Your task to perform on an android device: change alarm snooze length Image 0: 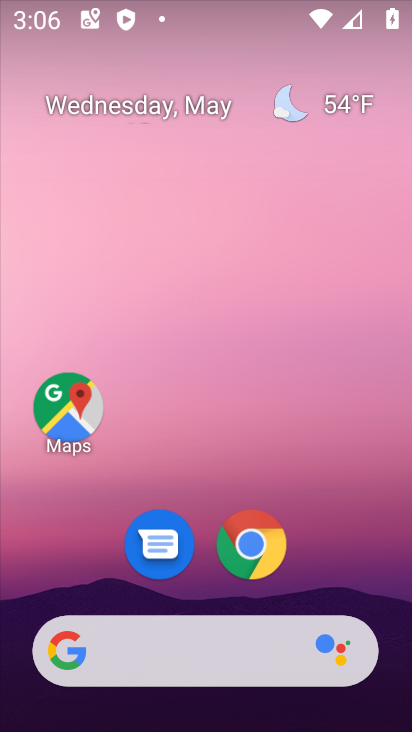
Step 0: drag from (374, 573) to (180, 16)
Your task to perform on an android device: change alarm snooze length Image 1: 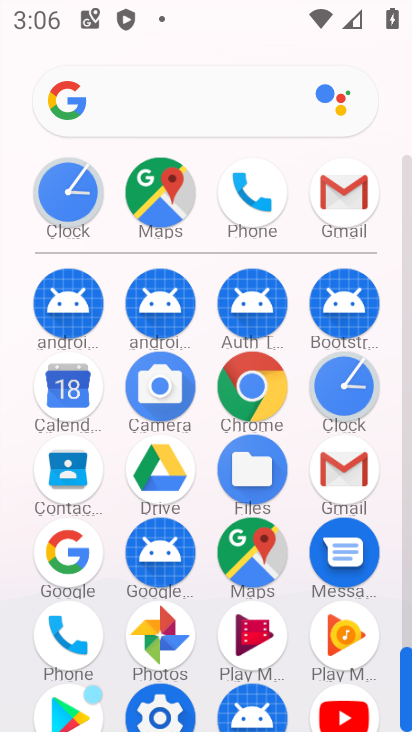
Step 1: click (328, 415)
Your task to perform on an android device: change alarm snooze length Image 2: 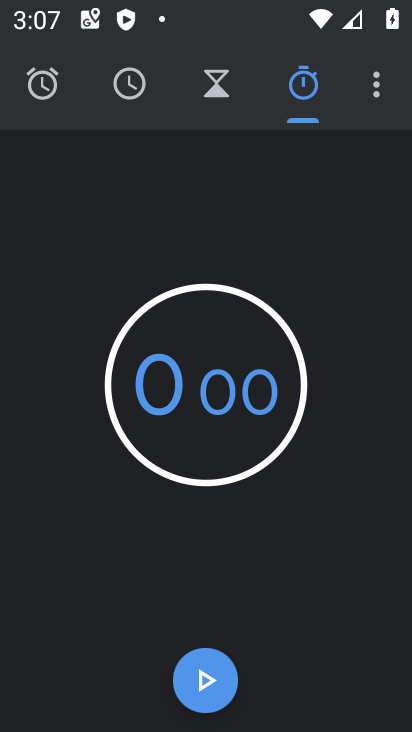
Step 2: click (379, 69)
Your task to perform on an android device: change alarm snooze length Image 3: 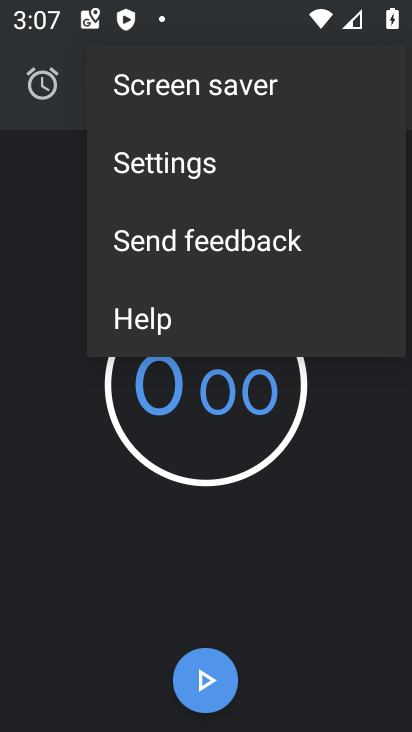
Step 3: click (276, 193)
Your task to perform on an android device: change alarm snooze length Image 4: 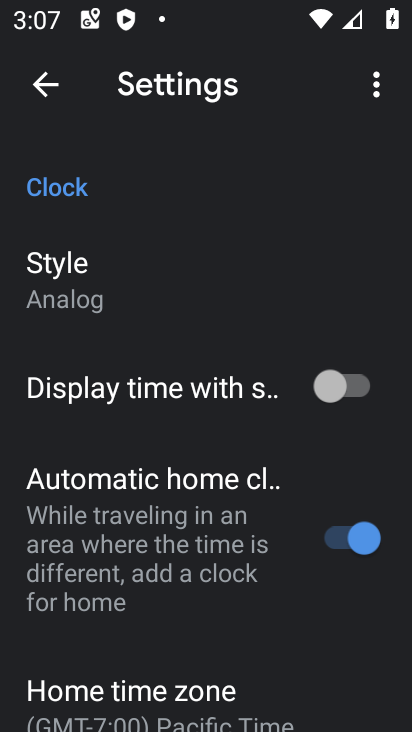
Step 4: drag from (231, 408) to (127, 62)
Your task to perform on an android device: change alarm snooze length Image 5: 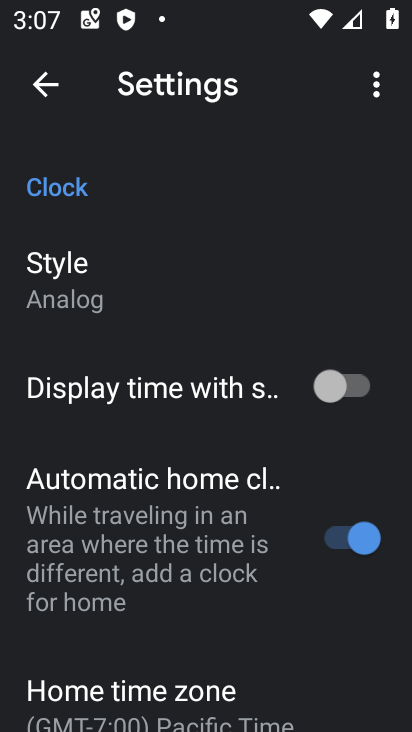
Step 5: drag from (142, 528) to (39, 105)
Your task to perform on an android device: change alarm snooze length Image 6: 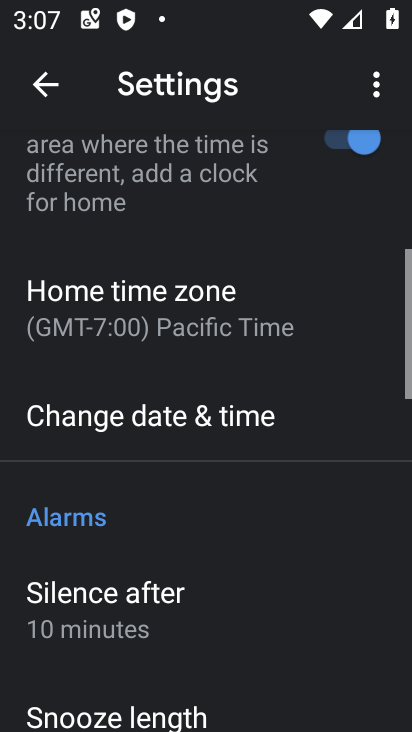
Step 6: drag from (105, 548) to (84, 340)
Your task to perform on an android device: change alarm snooze length Image 7: 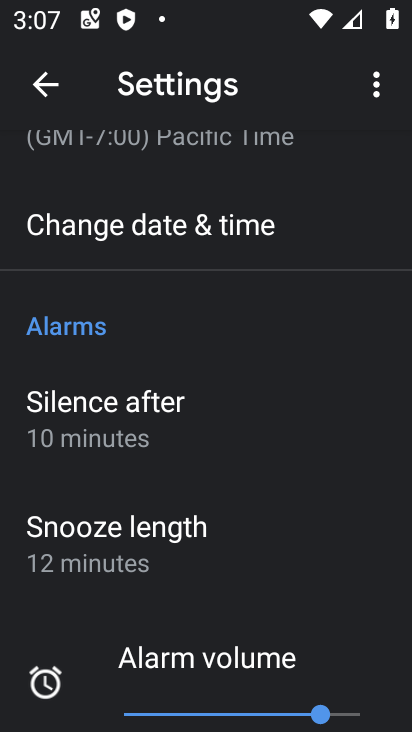
Step 7: click (114, 558)
Your task to perform on an android device: change alarm snooze length Image 8: 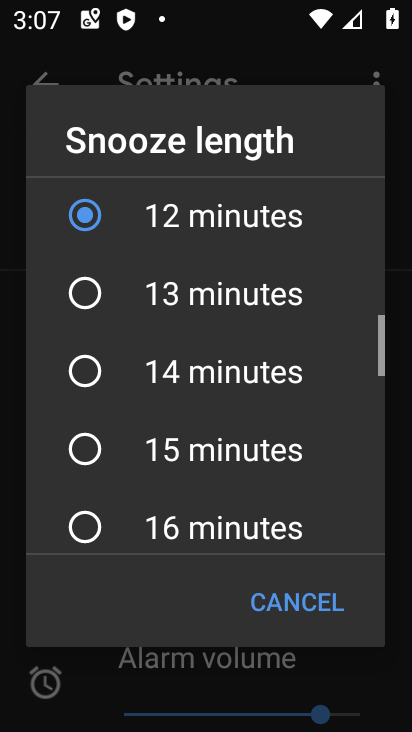
Step 8: click (114, 355)
Your task to perform on an android device: change alarm snooze length Image 9: 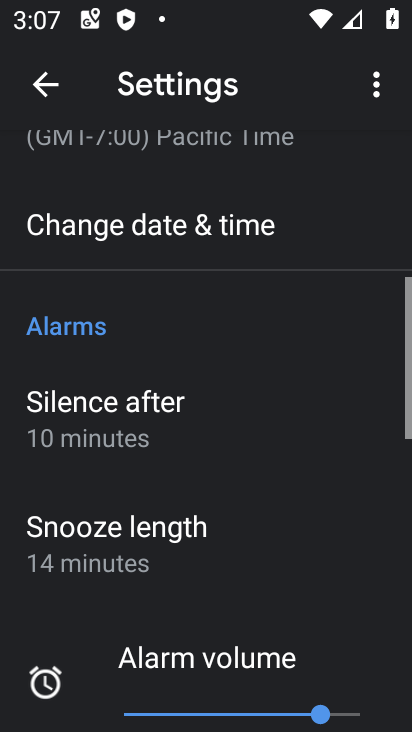
Step 9: task complete